Your task to perform on an android device: Show me productivity apps on the Play Store Image 0: 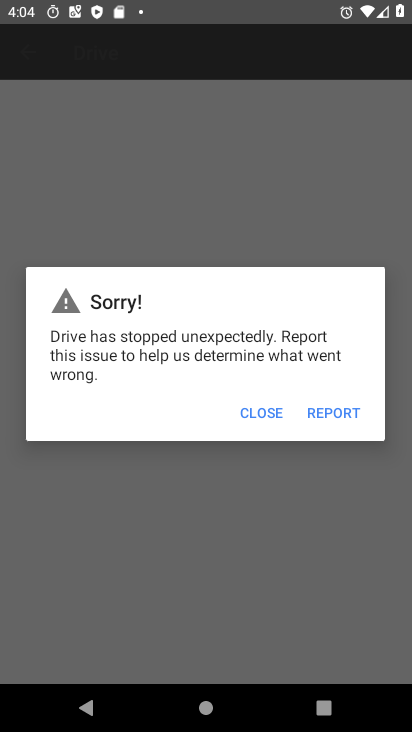
Step 0: press home button
Your task to perform on an android device: Show me productivity apps on the Play Store Image 1: 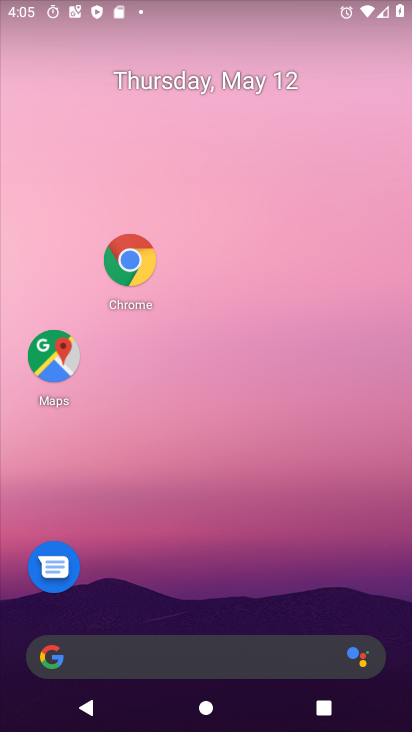
Step 1: drag from (218, 627) to (203, 227)
Your task to perform on an android device: Show me productivity apps on the Play Store Image 2: 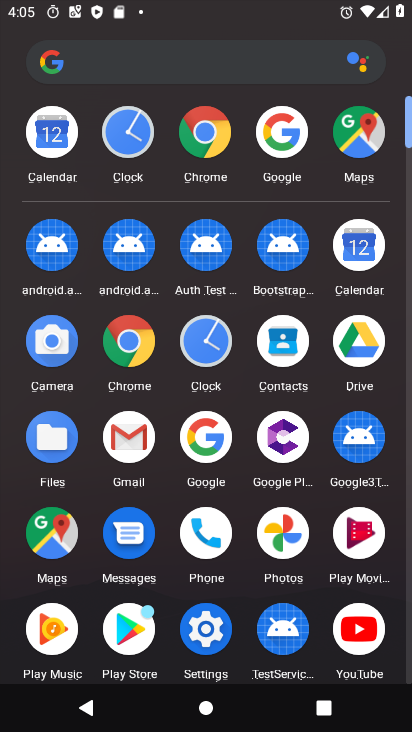
Step 2: click (140, 635)
Your task to perform on an android device: Show me productivity apps on the Play Store Image 3: 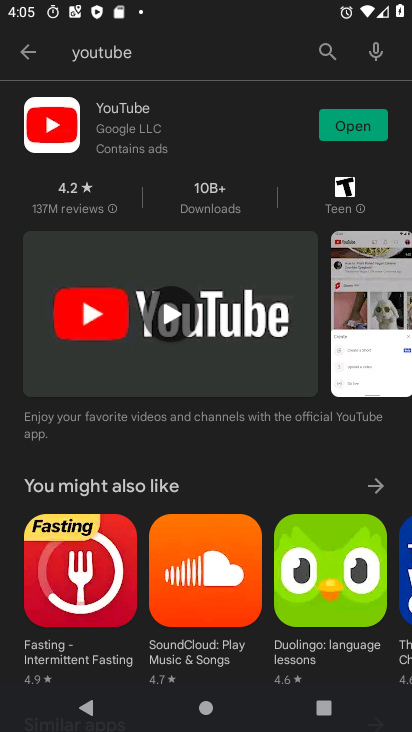
Step 3: drag from (194, 664) to (172, 332)
Your task to perform on an android device: Show me productivity apps on the Play Store Image 4: 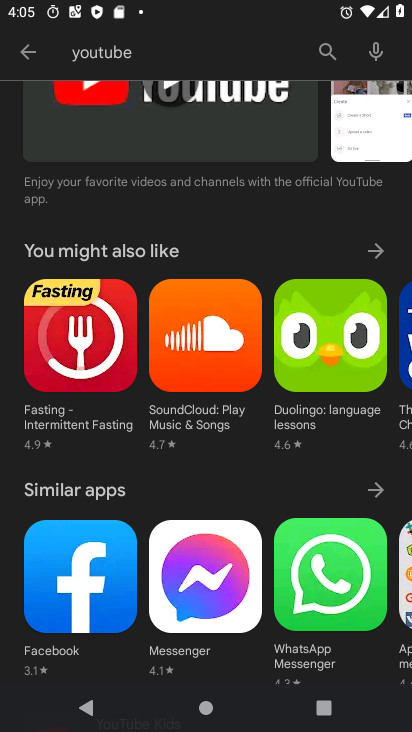
Step 4: drag from (214, 621) to (195, 248)
Your task to perform on an android device: Show me productivity apps on the Play Store Image 5: 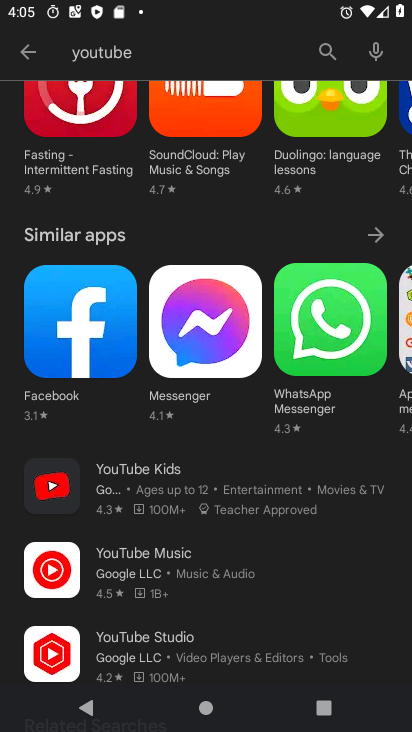
Step 5: click (30, 50)
Your task to perform on an android device: Show me productivity apps on the Play Store Image 6: 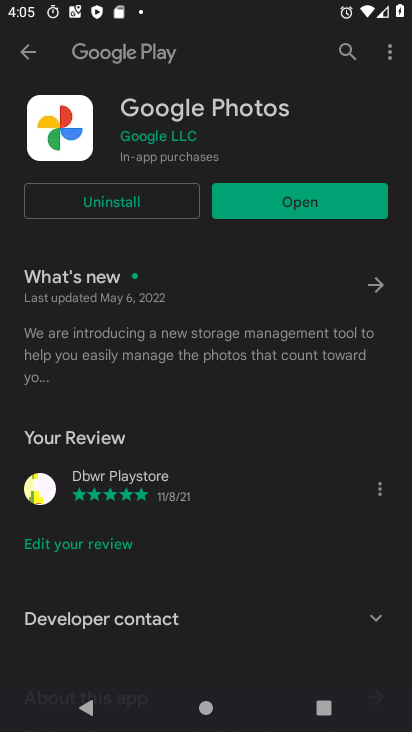
Step 6: click (30, 56)
Your task to perform on an android device: Show me productivity apps on the Play Store Image 7: 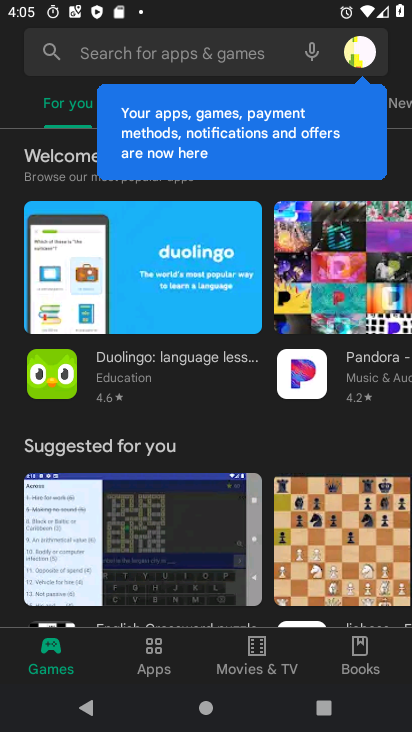
Step 7: click (154, 651)
Your task to perform on an android device: Show me productivity apps on the Play Store Image 8: 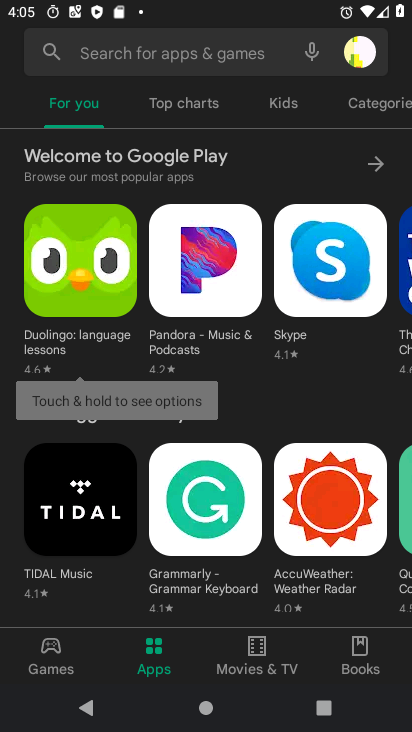
Step 8: task complete